Your task to perform on an android device: Show the shopping cart on target. Search for "logitech g910" on target, select the first entry, add it to the cart, then select checkout. Image 0: 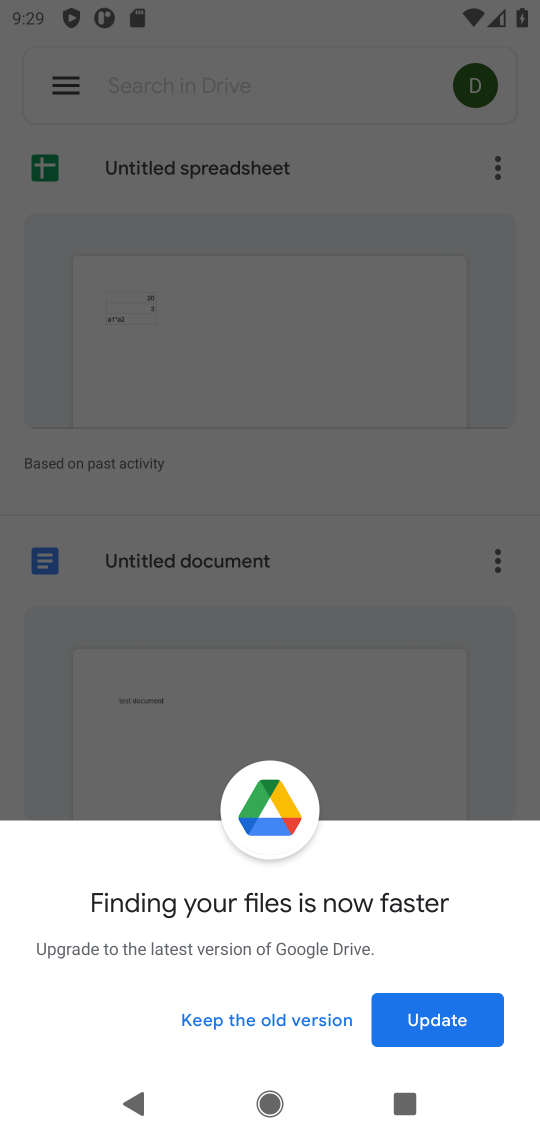
Step 0: press home button
Your task to perform on an android device: Show the shopping cart on target. Search for "logitech g910" on target, select the first entry, add it to the cart, then select checkout. Image 1: 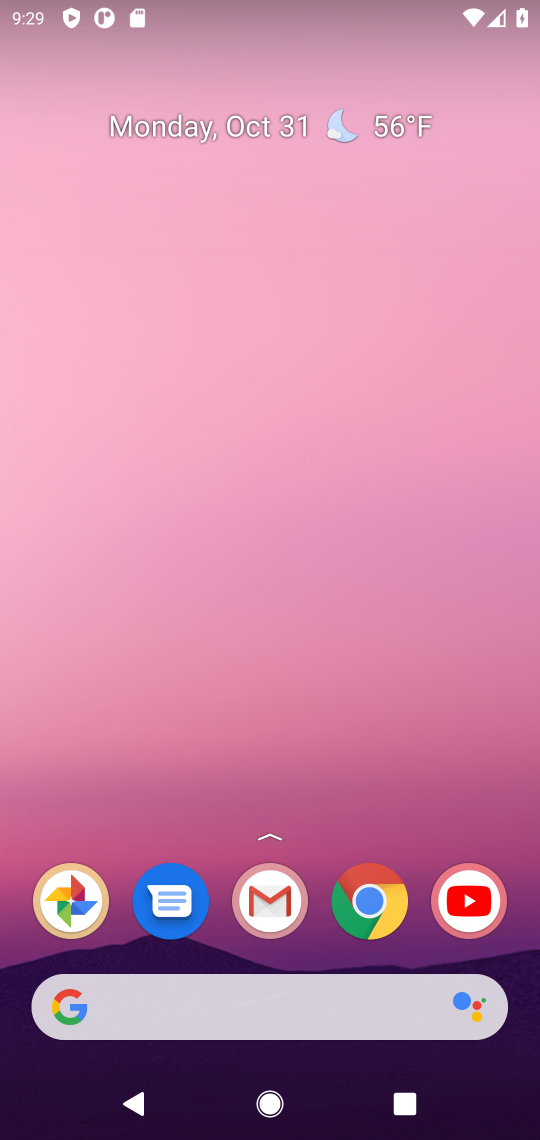
Step 1: drag from (176, 970) to (199, 365)
Your task to perform on an android device: Show the shopping cart on target. Search for "logitech g910" on target, select the first entry, add it to the cart, then select checkout. Image 2: 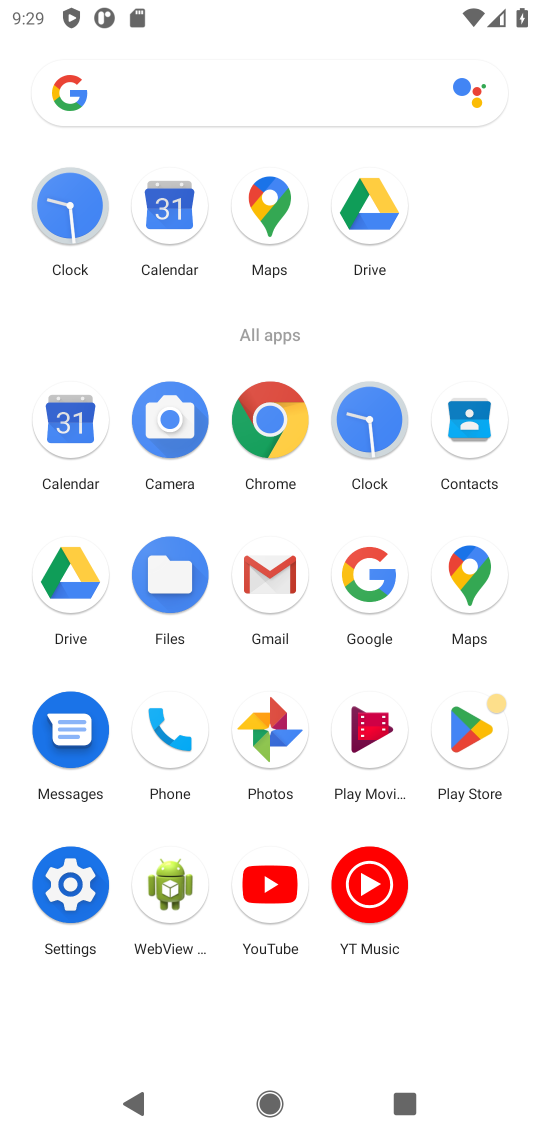
Step 2: click (354, 558)
Your task to perform on an android device: Show the shopping cart on target. Search for "logitech g910" on target, select the first entry, add it to the cart, then select checkout. Image 3: 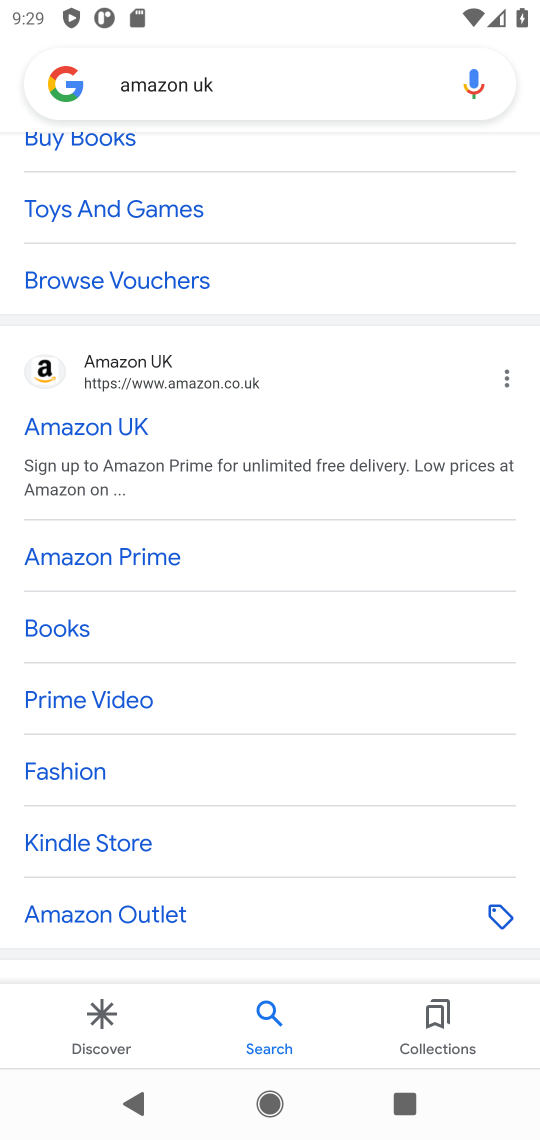
Step 3: click (279, 100)
Your task to perform on an android device: Show the shopping cart on target. Search for "logitech g910" on target, select the first entry, add it to the cart, then select checkout. Image 4: 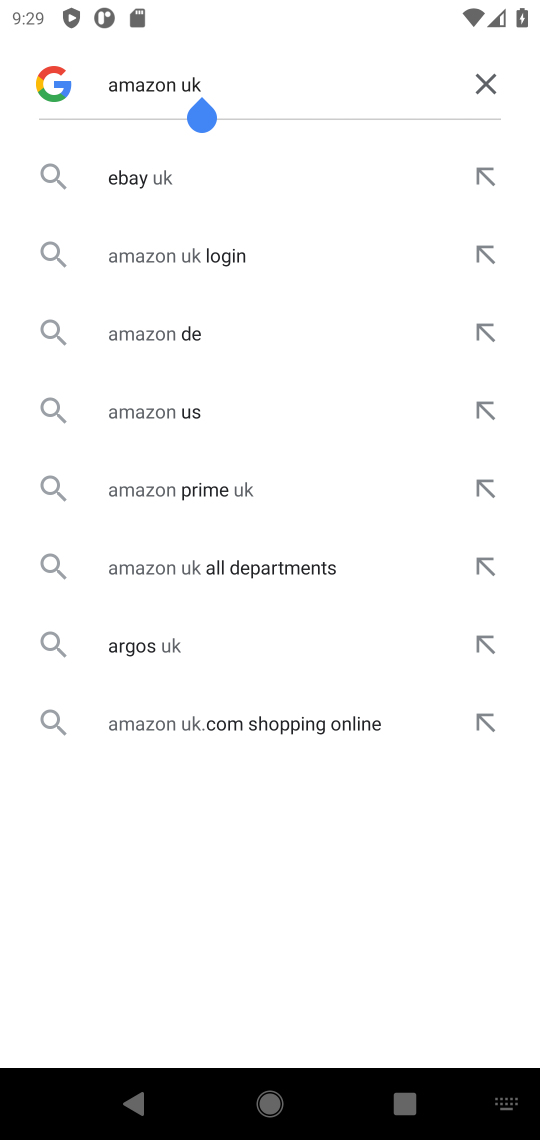
Step 4: click (492, 90)
Your task to perform on an android device: Show the shopping cart on target. Search for "logitech g910" on target, select the first entry, add it to the cart, then select checkout. Image 5: 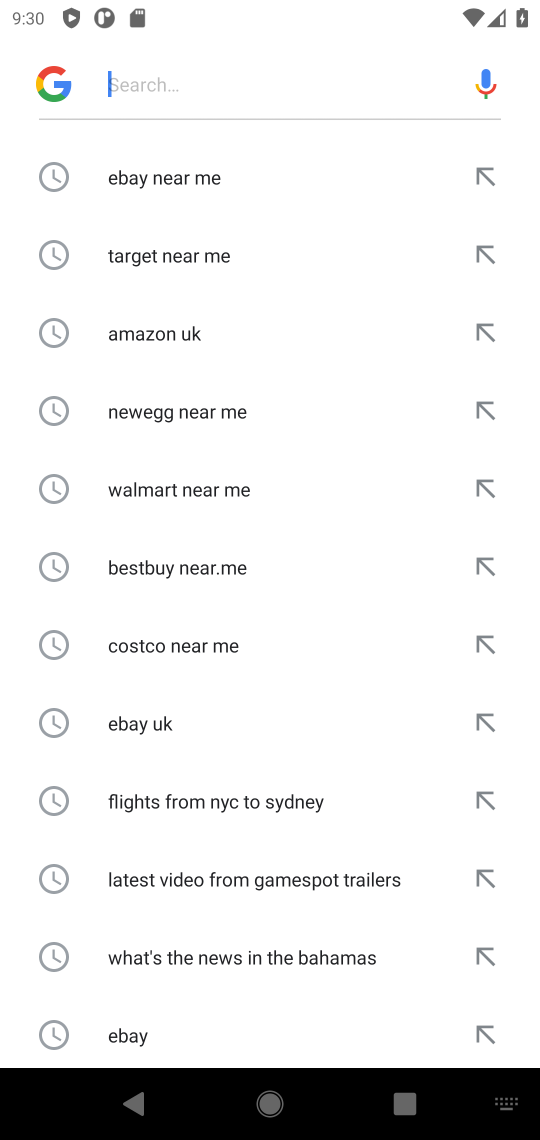
Step 5: click (175, 91)
Your task to perform on an android device: Show the shopping cart on target. Search for "logitech g910" on target, select the first entry, add it to the cart, then select checkout. Image 6: 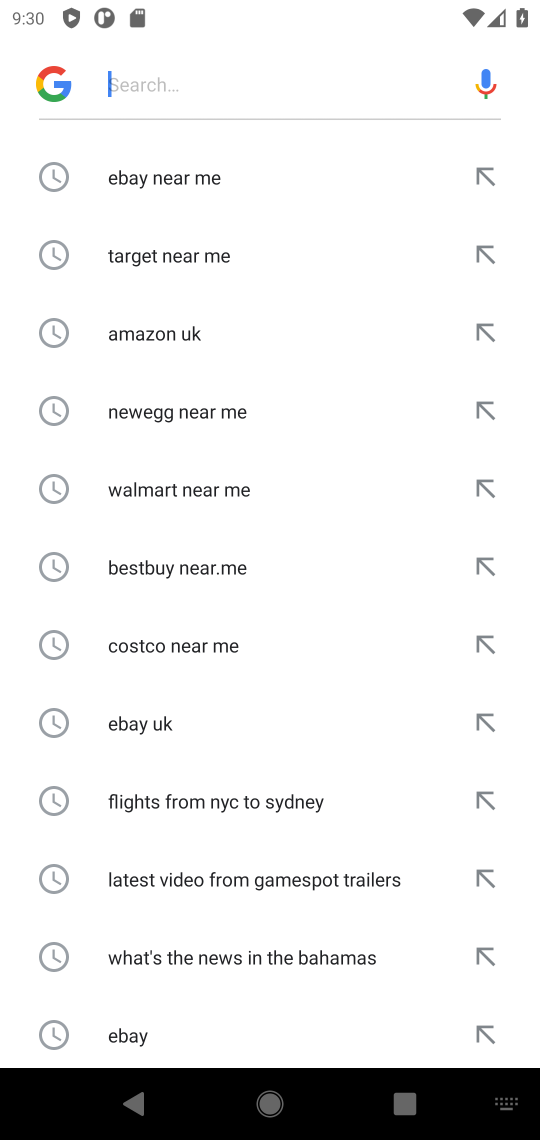
Step 6: type "target "
Your task to perform on an android device: Show the shopping cart on target. Search for "logitech g910" on target, select the first entry, add it to the cart, then select checkout. Image 7: 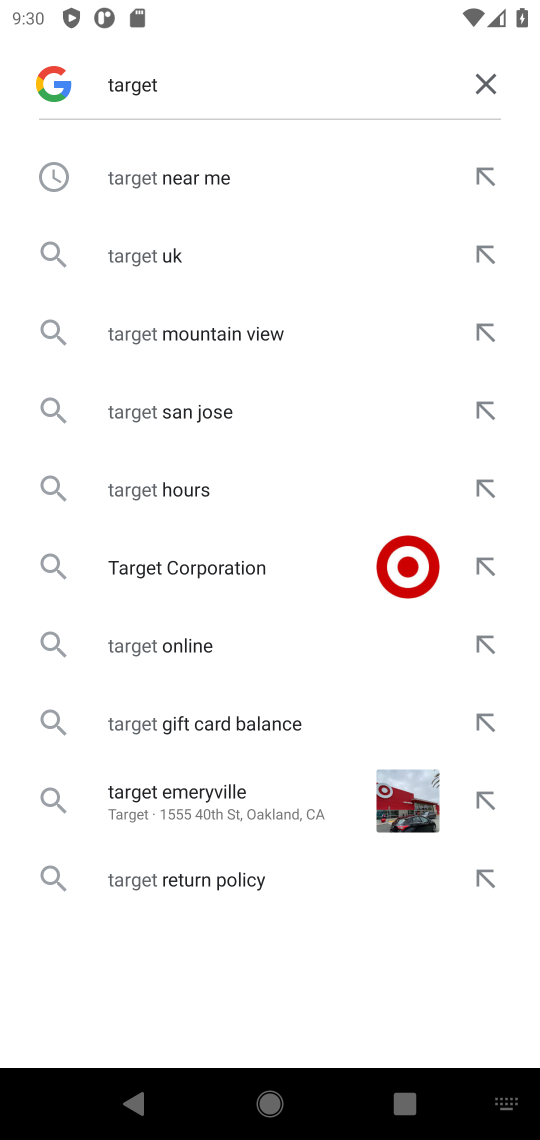
Step 7: click (202, 181)
Your task to perform on an android device: Show the shopping cart on target. Search for "logitech g910" on target, select the first entry, add it to the cart, then select checkout. Image 8: 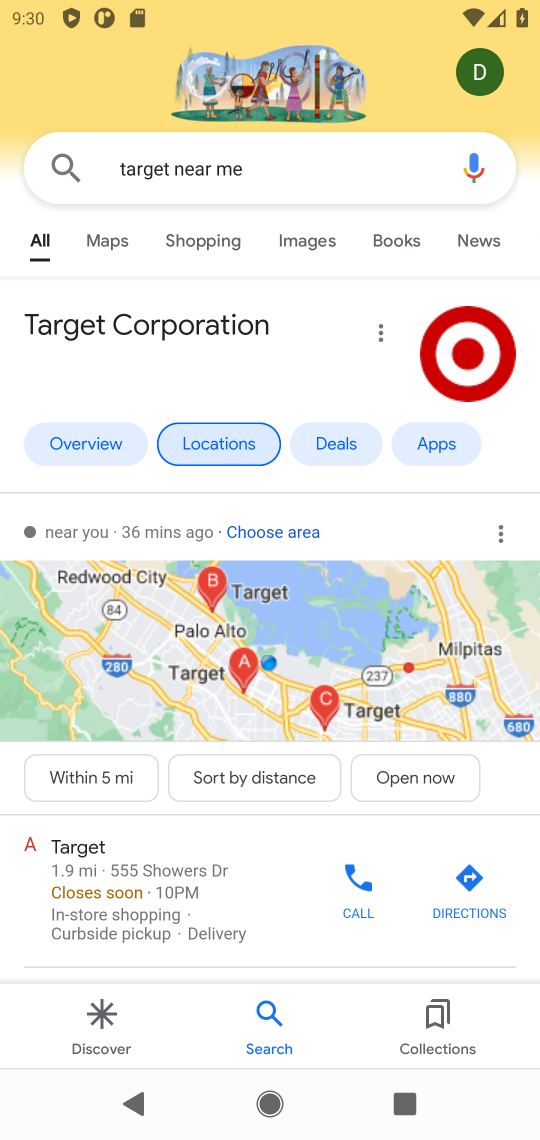
Step 8: drag from (134, 746) to (218, 272)
Your task to perform on an android device: Show the shopping cart on target. Search for "logitech g910" on target, select the first entry, add it to the cart, then select checkout. Image 9: 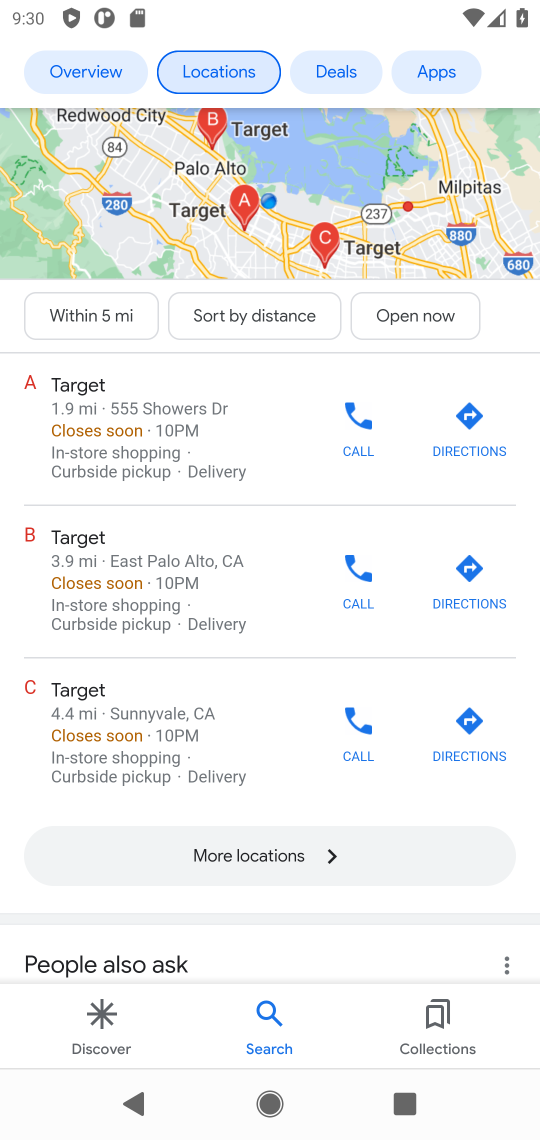
Step 9: drag from (104, 782) to (120, 486)
Your task to perform on an android device: Show the shopping cart on target. Search for "logitech g910" on target, select the first entry, add it to the cart, then select checkout. Image 10: 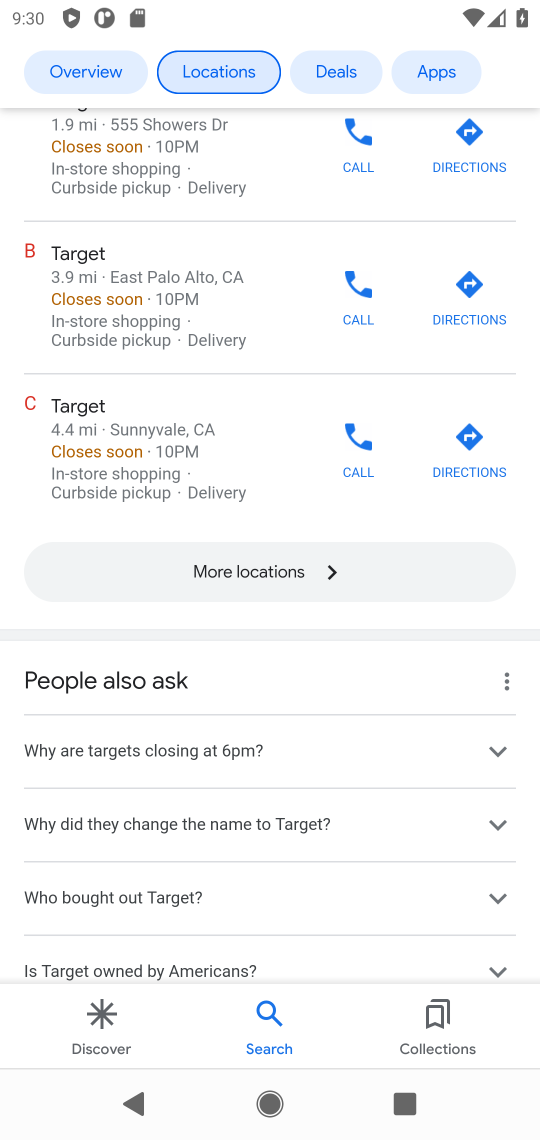
Step 10: drag from (332, 859) to (290, 26)
Your task to perform on an android device: Show the shopping cart on target. Search for "logitech g910" on target, select the first entry, add it to the cart, then select checkout. Image 11: 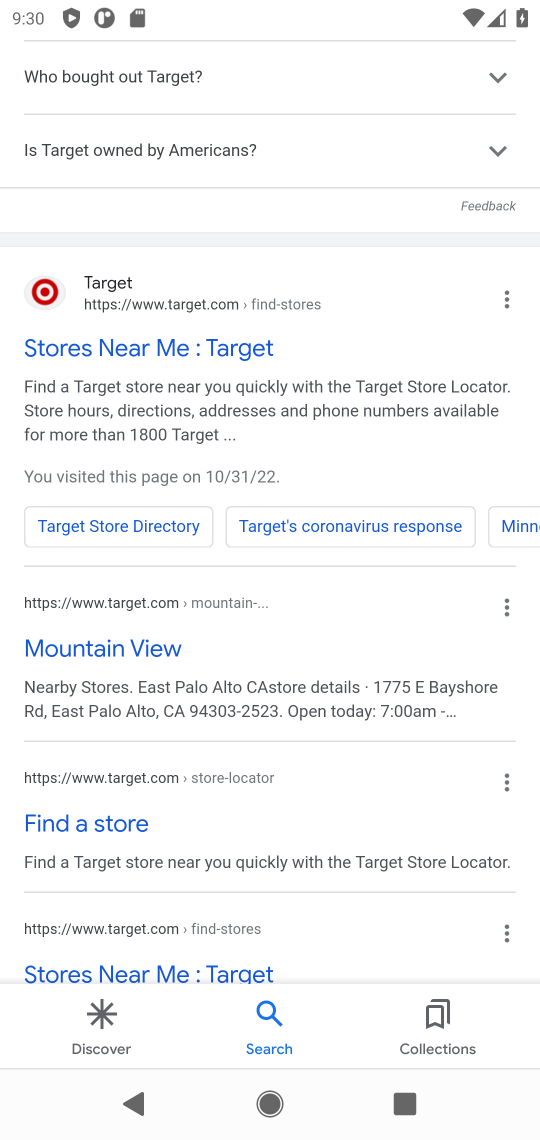
Step 11: click (32, 444)
Your task to perform on an android device: Show the shopping cart on target. Search for "logitech g910" on target, select the first entry, add it to the cart, then select checkout. Image 12: 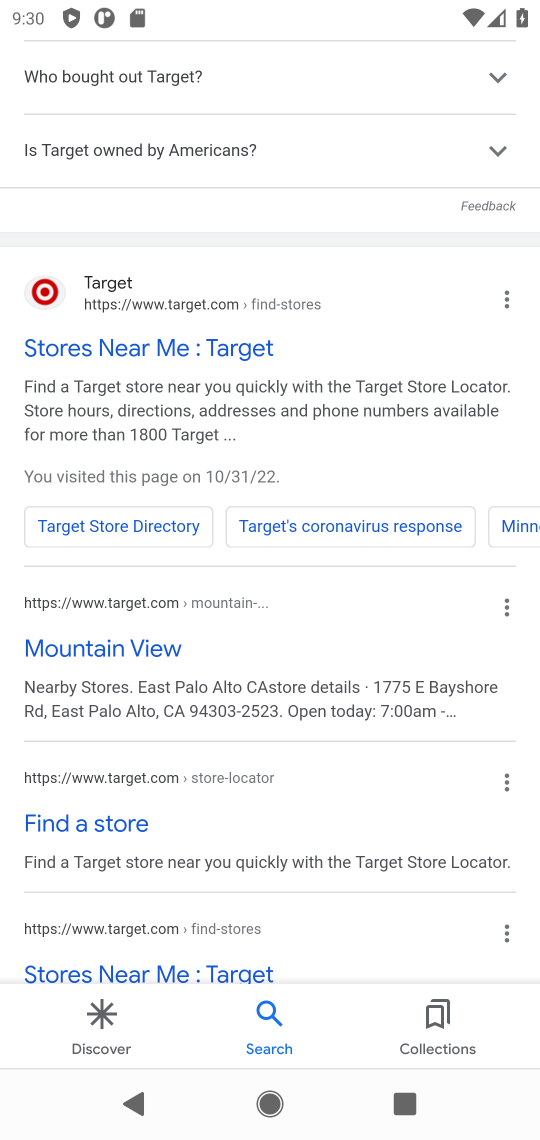
Step 12: click (32, 444)
Your task to perform on an android device: Show the shopping cart on target. Search for "logitech g910" on target, select the first entry, add it to the cart, then select checkout. Image 13: 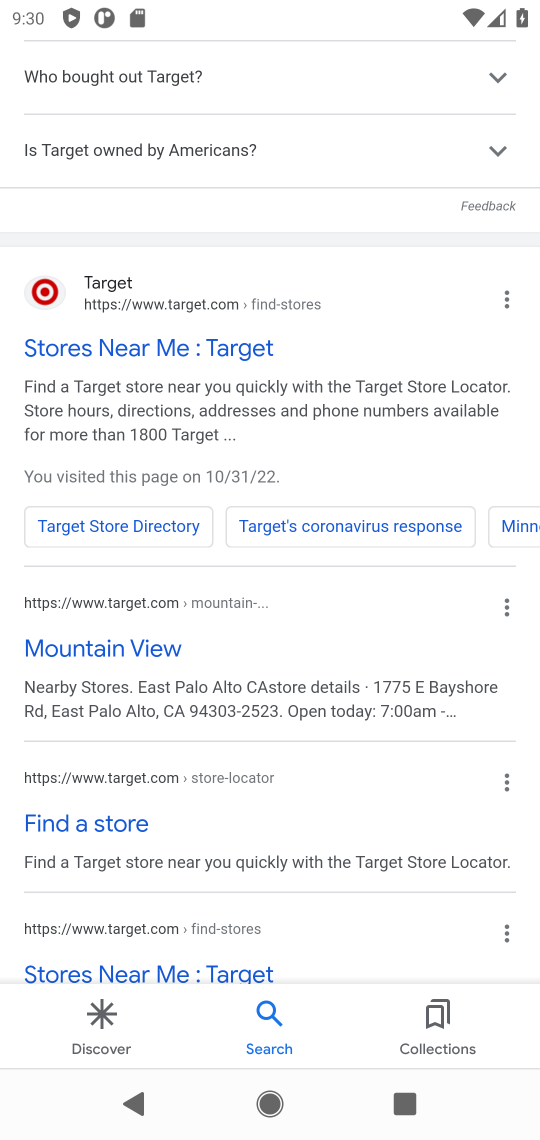
Step 13: click (44, 302)
Your task to perform on an android device: Show the shopping cart on target. Search for "logitech g910" on target, select the first entry, add it to the cart, then select checkout. Image 14: 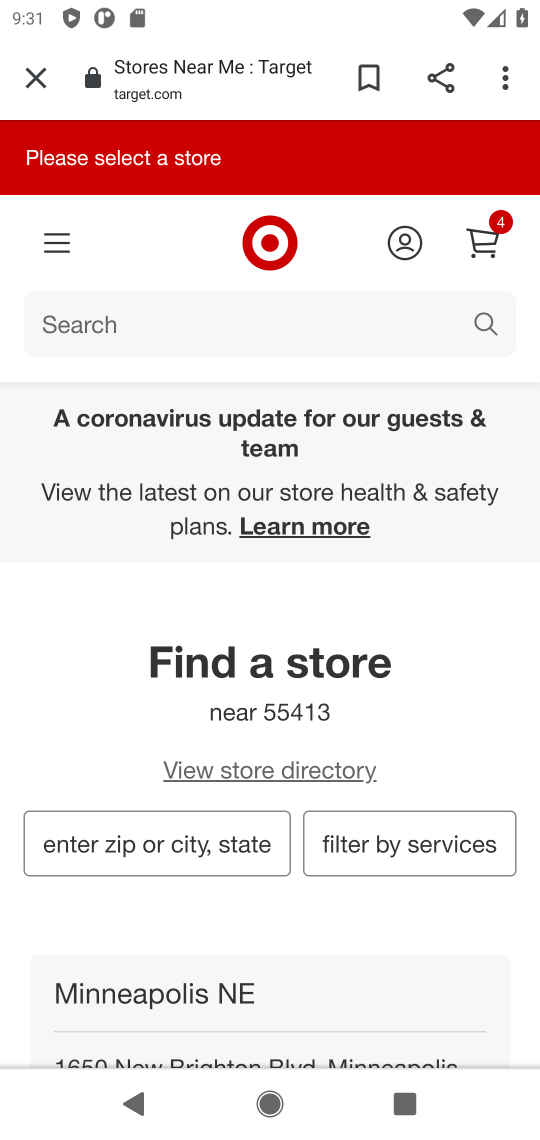
Step 14: click (172, 320)
Your task to perform on an android device: Show the shopping cart on target. Search for "logitech g910" on target, select the first entry, add it to the cart, then select checkout. Image 15: 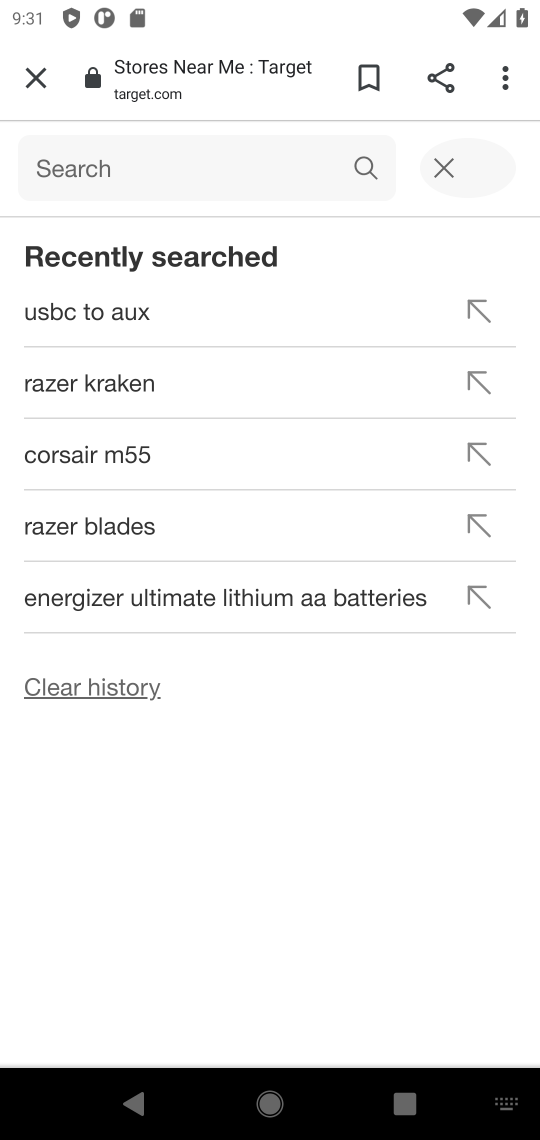
Step 15: type "logitech g910" "
Your task to perform on an android device: Show the shopping cart on target. Search for "logitech g910" on target, select the first entry, add it to the cart, then select checkout. Image 16: 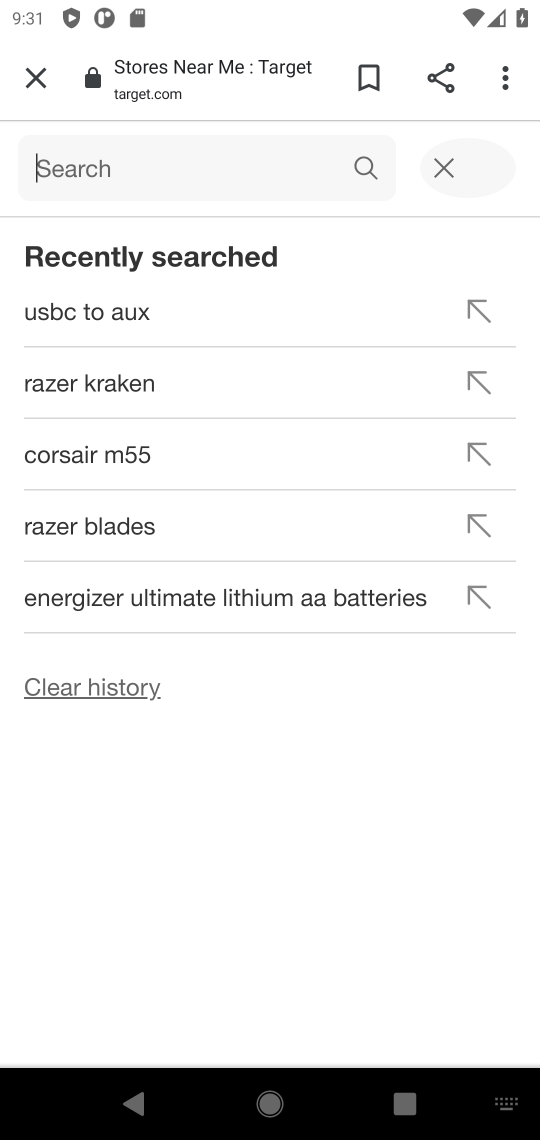
Step 16: click (127, 143)
Your task to perform on an android device: Show the shopping cart on target. Search for "logitech g910" on target, select the first entry, add it to the cart, then select checkout. Image 17: 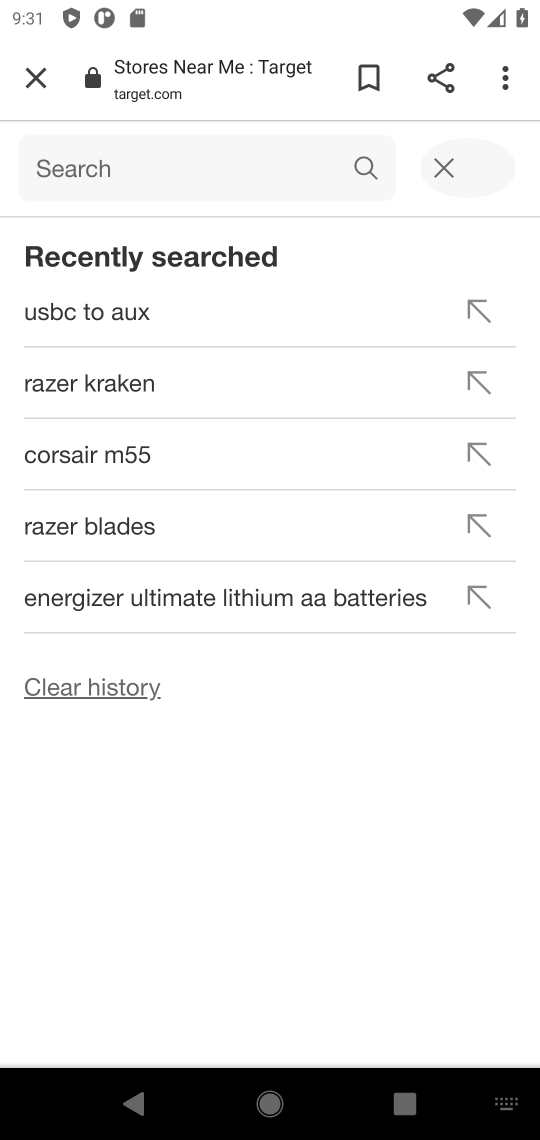
Step 17: type "logitech g910" "
Your task to perform on an android device: Show the shopping cart on target. Search for "logitech g910" on target, select the first entry, add it to the cart, then select checkout. Image 18: 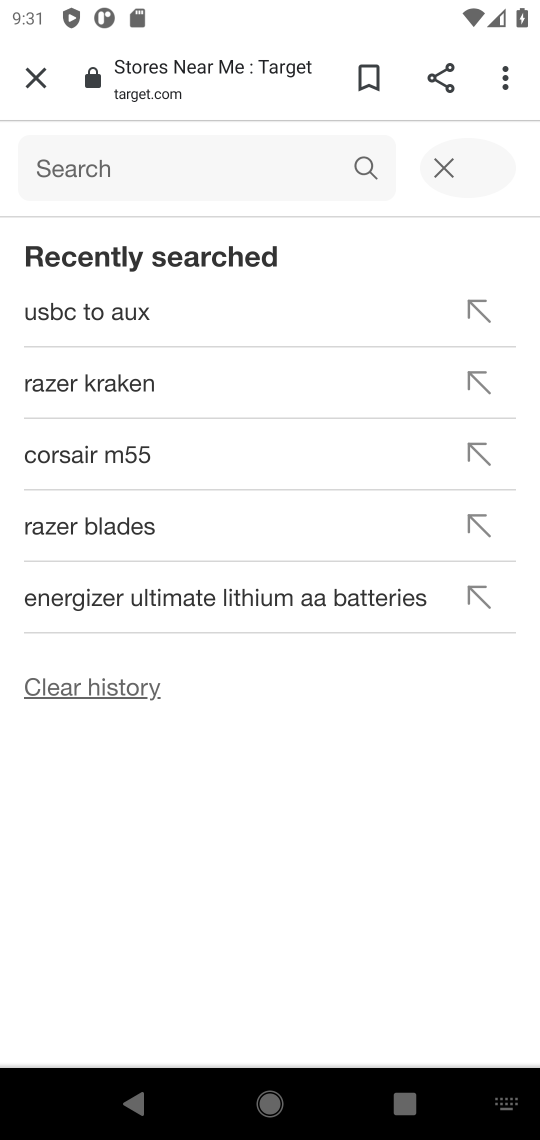
Step 18: press back button
Your task to perform on an android device: Show the shopping cart on target. Search for "logitech g910" on target, select the first entry, add it to the cart, then select checkout. Image 19: 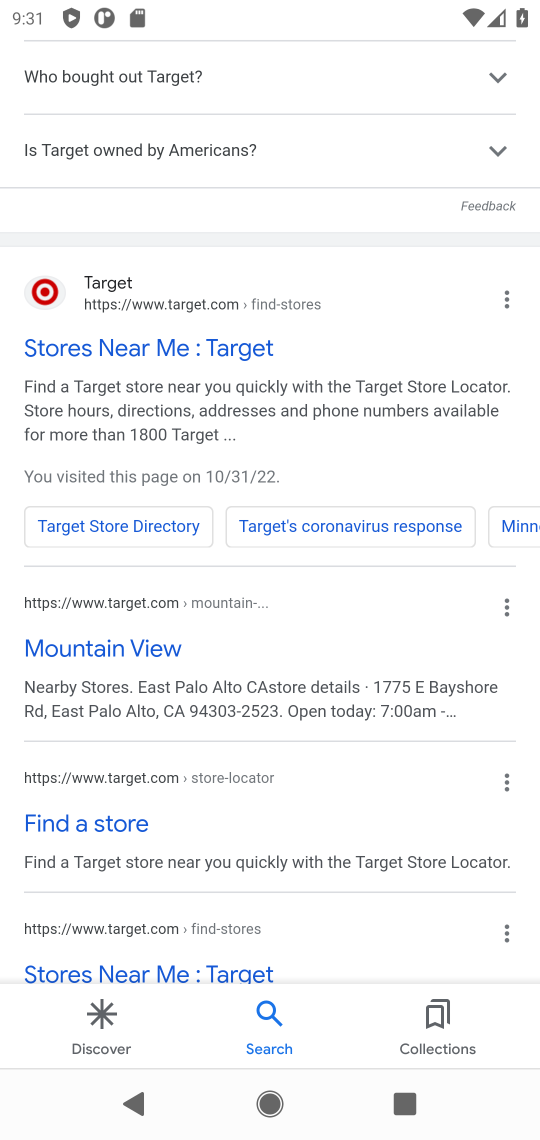
Step 19: click (45, 298)
Your task to perform on an android device: Show the shopping cart on target. Search for "logitech g910" on target, select the first entry, add it to the cart, then select checkout. Image 20: 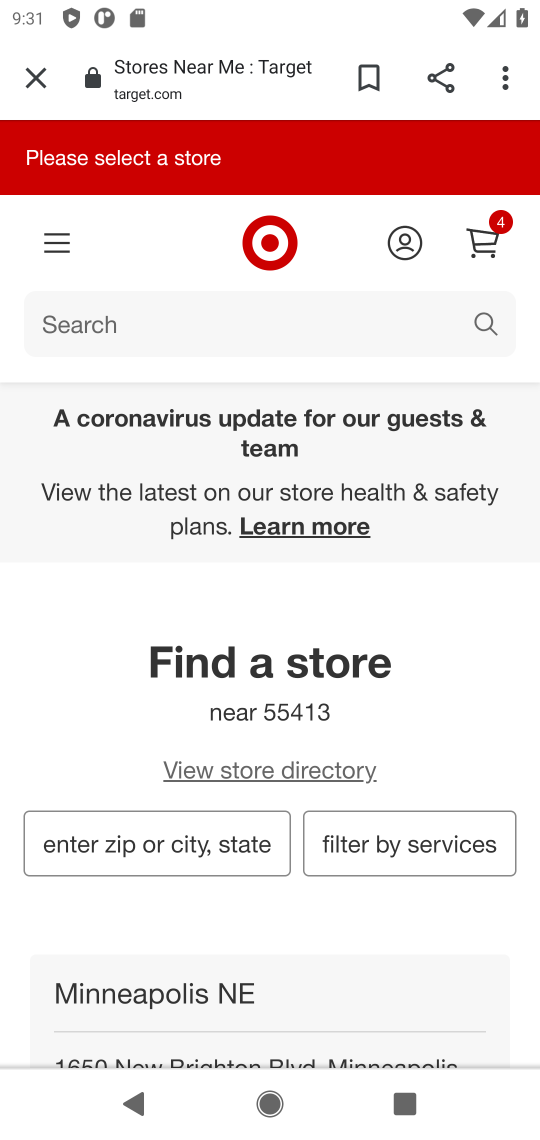
Step 20: click (148, 302)
Your task to perform on an android device: Show the shopping cart on target. Search for "logitech g910" on target, select the first entry, add it to the cart, then select checkout. Image 21: 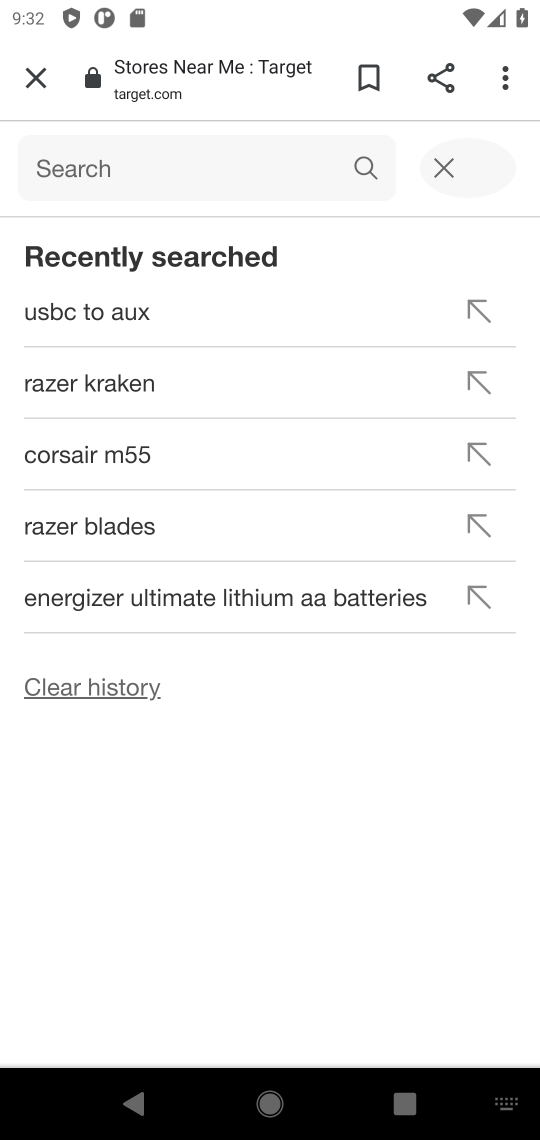
Step 21: type "logitech "
Your task to perform on an android device: Show the shopping cart on target. Search for "logitech g910" on target, select the first entry, add it to the cart, then select checkout. Image 22: 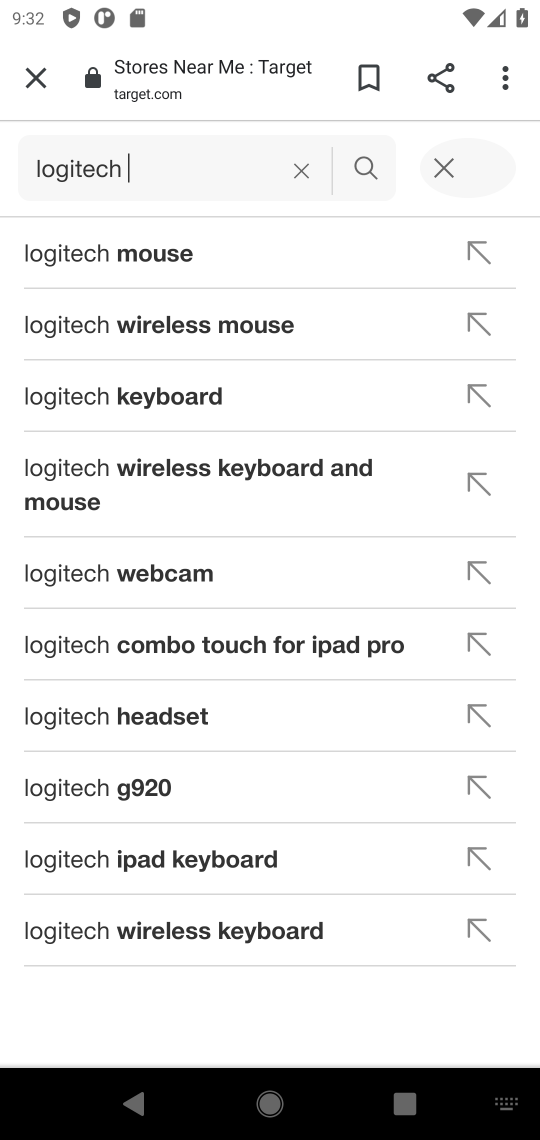
Step 22: click (143, 244)
Your task to perform on an android device: Show the shopping cart on target. Search for "logitech g910" on target, select the first entry, add it to the cart, then select checkout. Image 23: 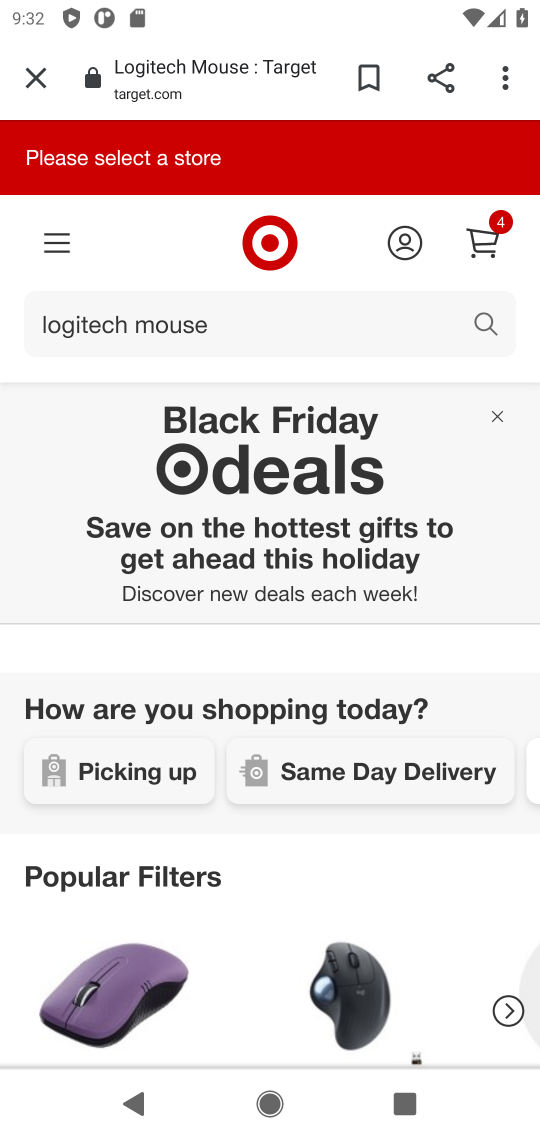
Step 23: drag from (281, 788) to (265, 270)
Your task to perform on an android device: Show the shopping cart on target. Search for "logitech g910" on target, select the first entry, add it to the cart, then select checkout. Image 24: 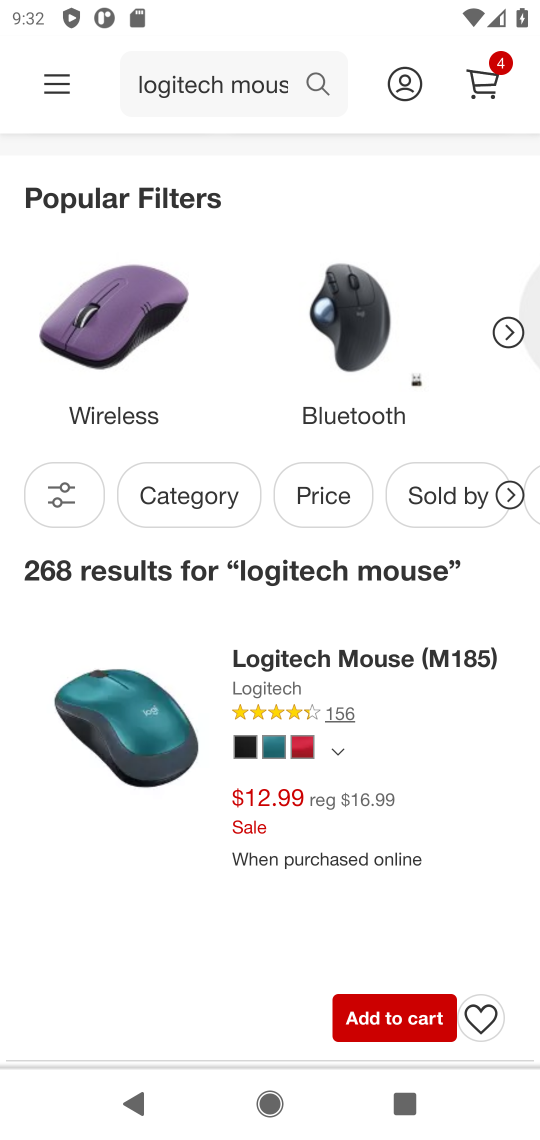
Step 24: click (405, 1016)
Your task to perform on an android device: Show the shopping cart on target. Search for "logitech g910" on target, select the first entry, add it to the cart, then select checkout. Image 25: 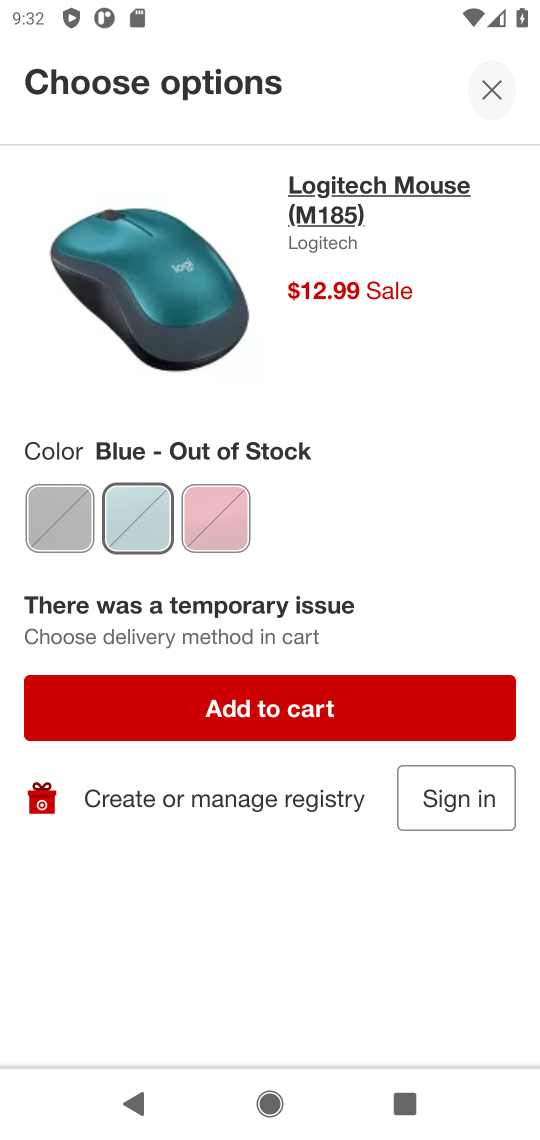
Step 25: task complete